Your task to perform on an android device: Open wifi settings Image 0: 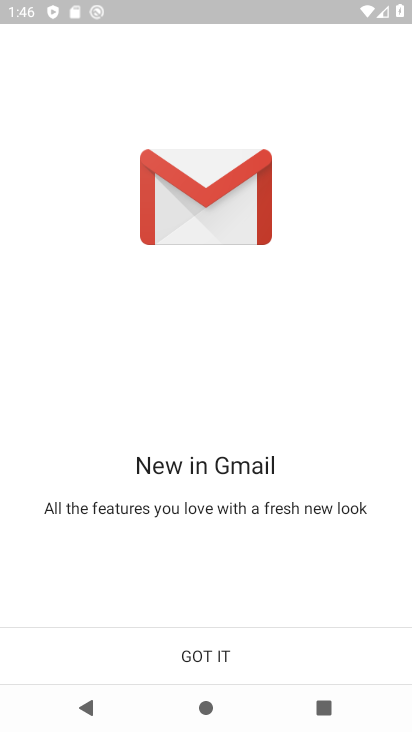
Step 0: press home button
Your task to perform on an android device: Open wifi settings Image 1: 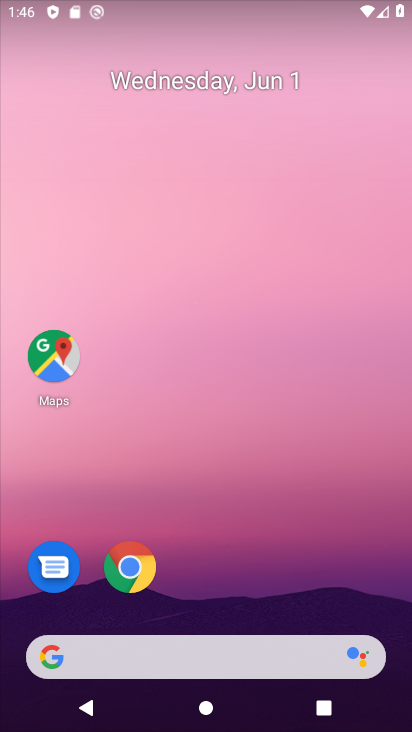
Step 1: drag from (253, 565) to (178, 18)
Your task to perform on an android device: Open wifi settings Image 2: 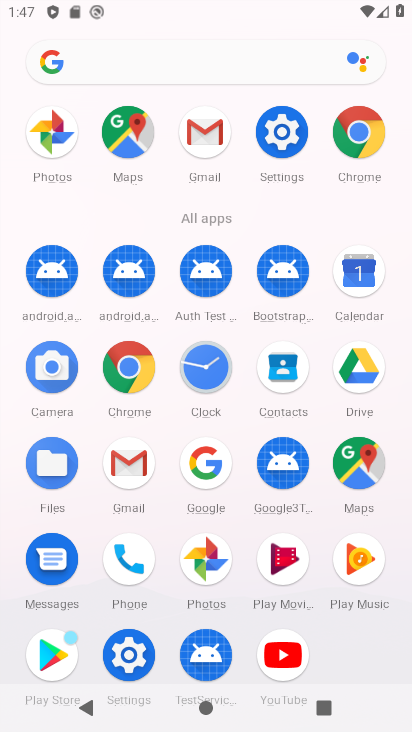
Step 2: click (282, 123)
Your task to perform on an android device: Open wifi settings Image 3: 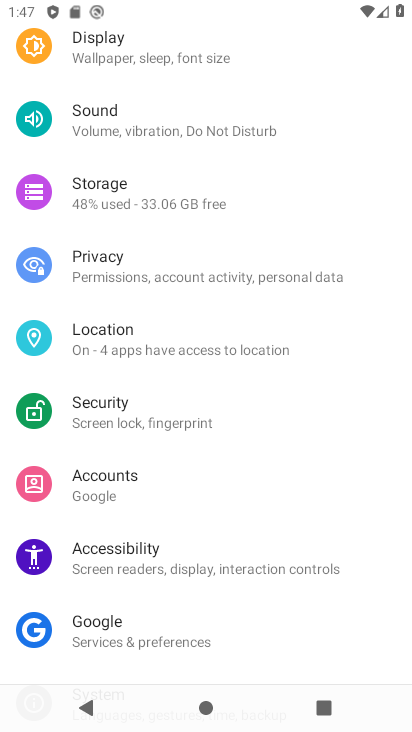
Step 3: drag from (192, 200) to (189, 512)
Your task to perform on an android device: Open wifi settings Image 4: 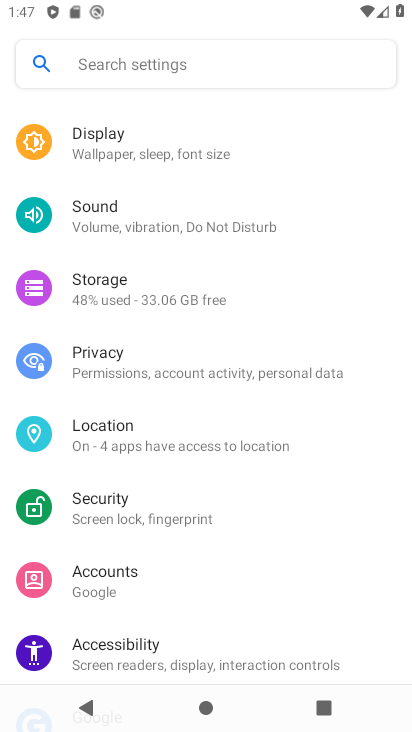
Step 4: drag from (238, 172) to (209, 507)
Your task to perform on an android device: Open wifi settings Image 5: 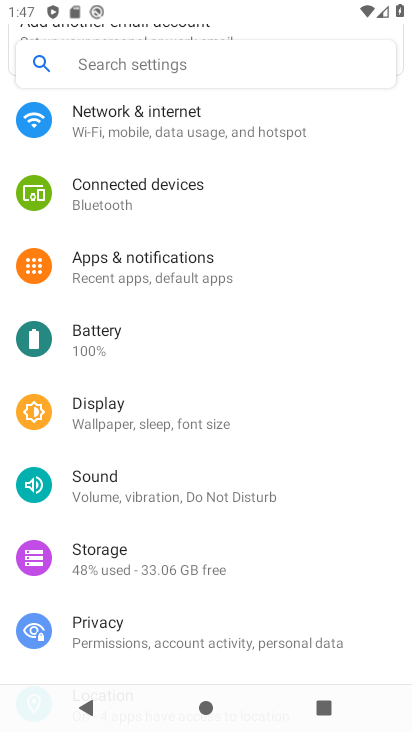
Step 5: drag from (231, 264) to (200, 597)
Your task to perform on an android device: Open wifi settings Image 6: 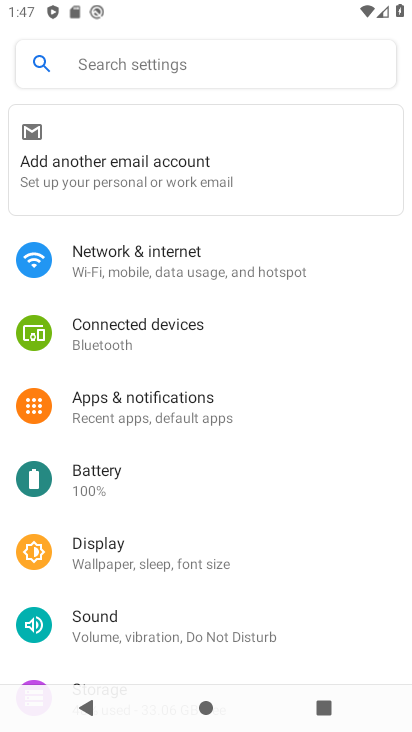
Step 6: click (109, 252)
Your task to perform on an android device: Open wifi settings Image 7: 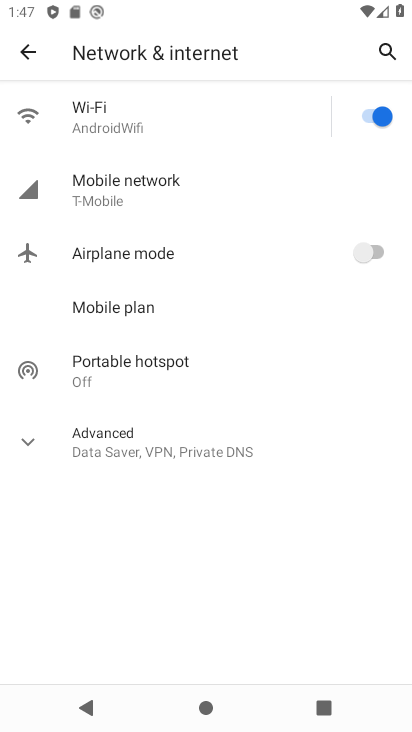
Step 7: click (111, 107)
Your task to perform on an android device: Open wifi settings Image 8: 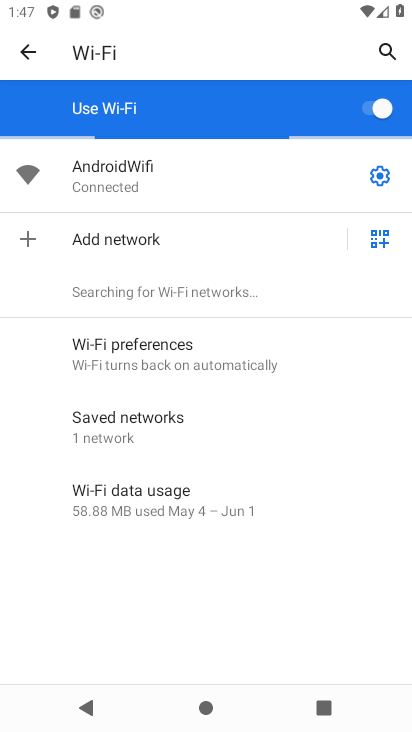
Step 8: task complete